Your task to perform on an android device: Search for beats solo 3 on target.com, select the first entry, and add it to the cart. Image 0: 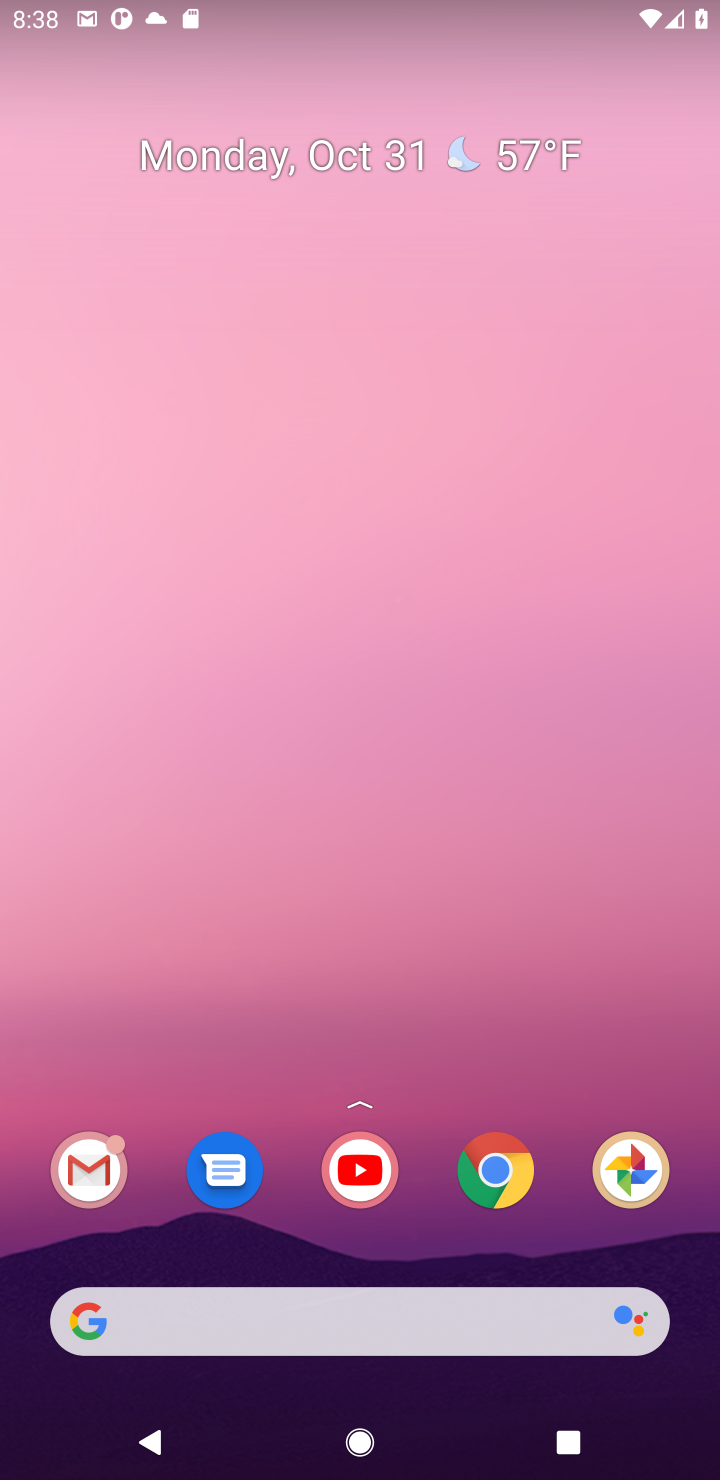
Step 0: click (497, 1165)
Your task to perform on an android device: Search for beats solo 3 on target.com, select the first entry, and add it to the cart. Image 1: 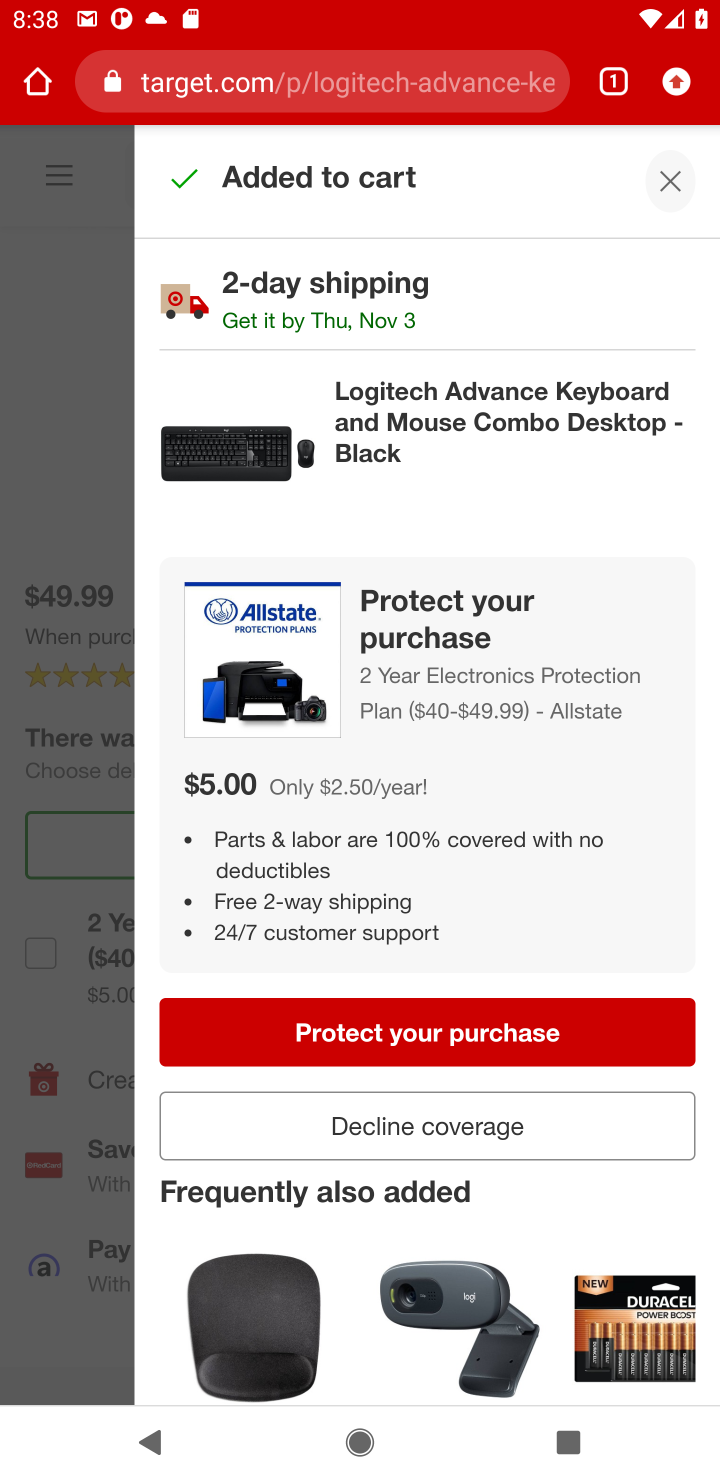
Step 1: press back button
Your task to perform on an android device: Search for beats solo 3 on target.com, select the first entry, and add it to the cart. Image 2: 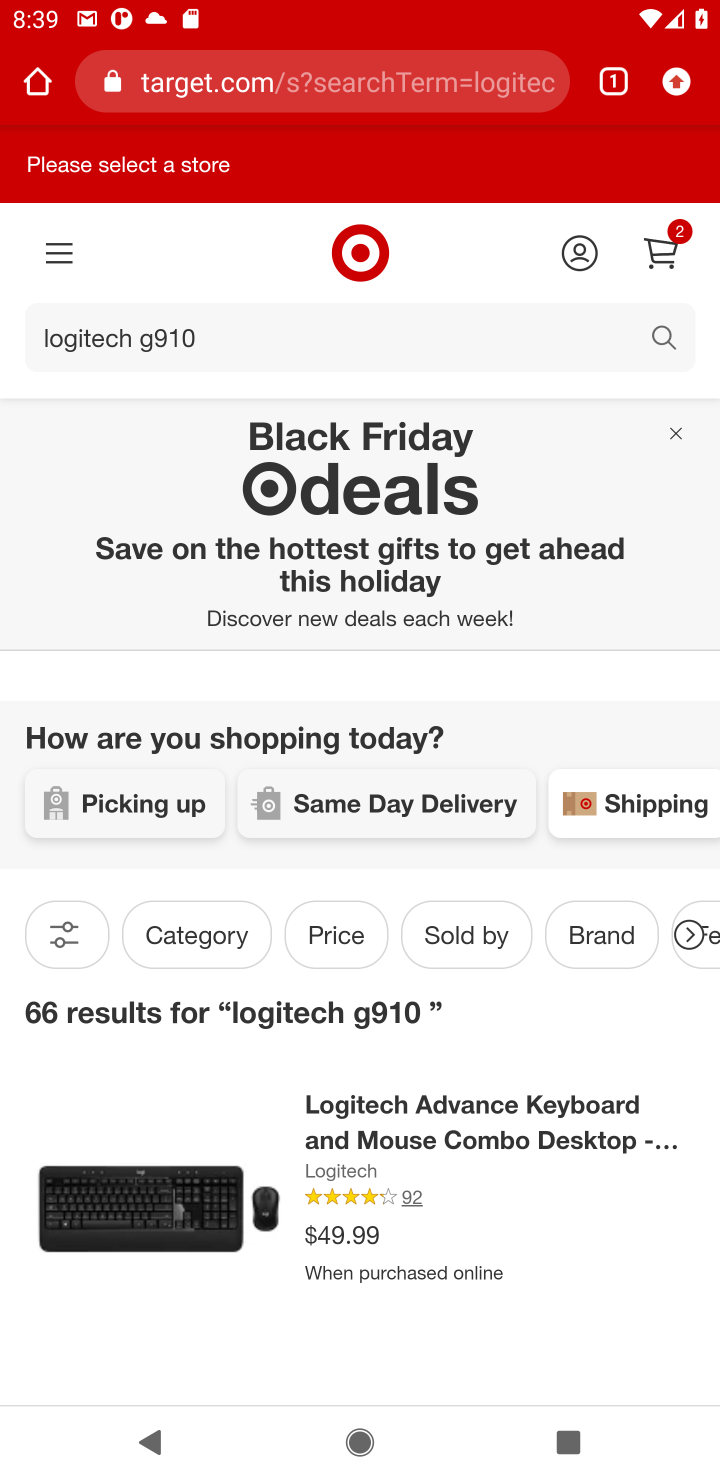
Step 2: click (526, 320)
Your task to perform on an android device: Search for beats solo 3 on target.com, select the first entry, and add it to the cart. Image 3: 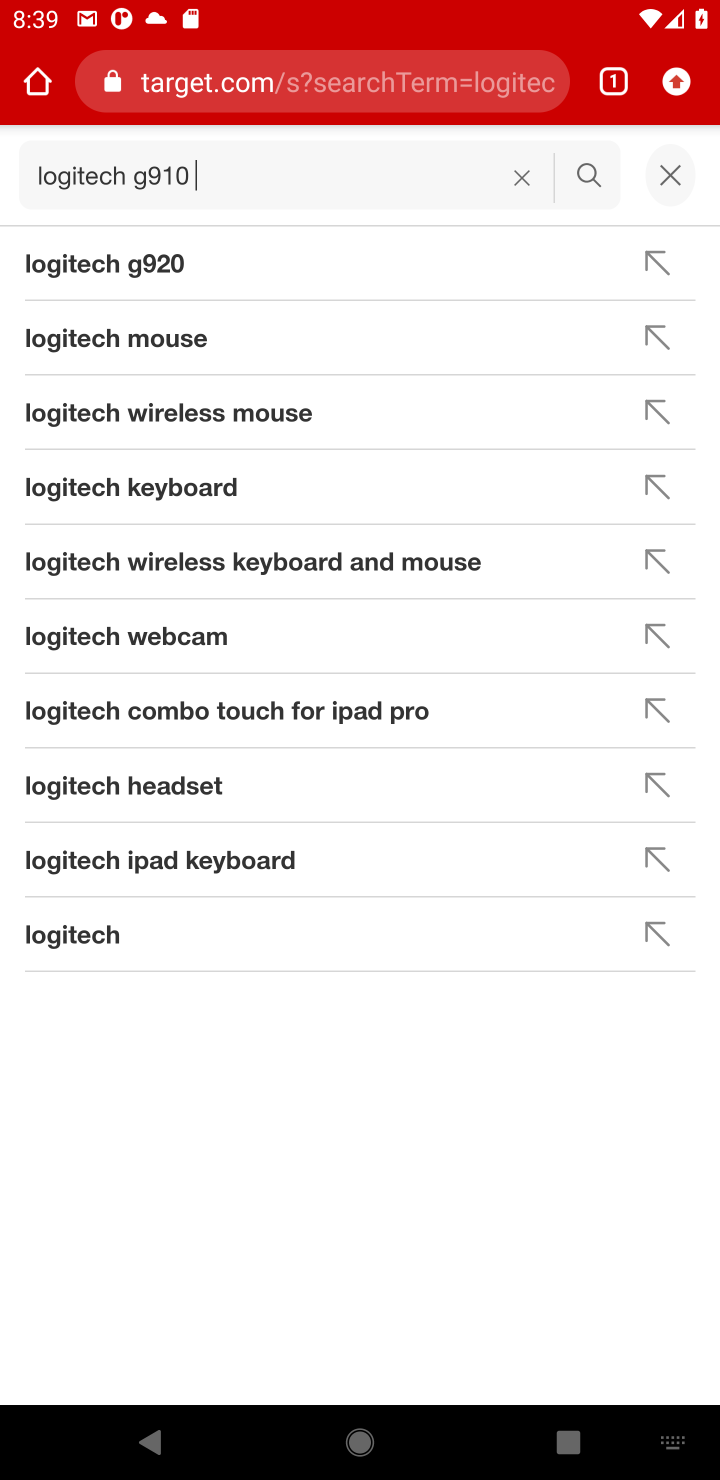
Step 3: click (511, 180)
Your task to perform on an android device: Search for beats solo 3 on target.com, select the first entry, and add it to the cart. Image 4: 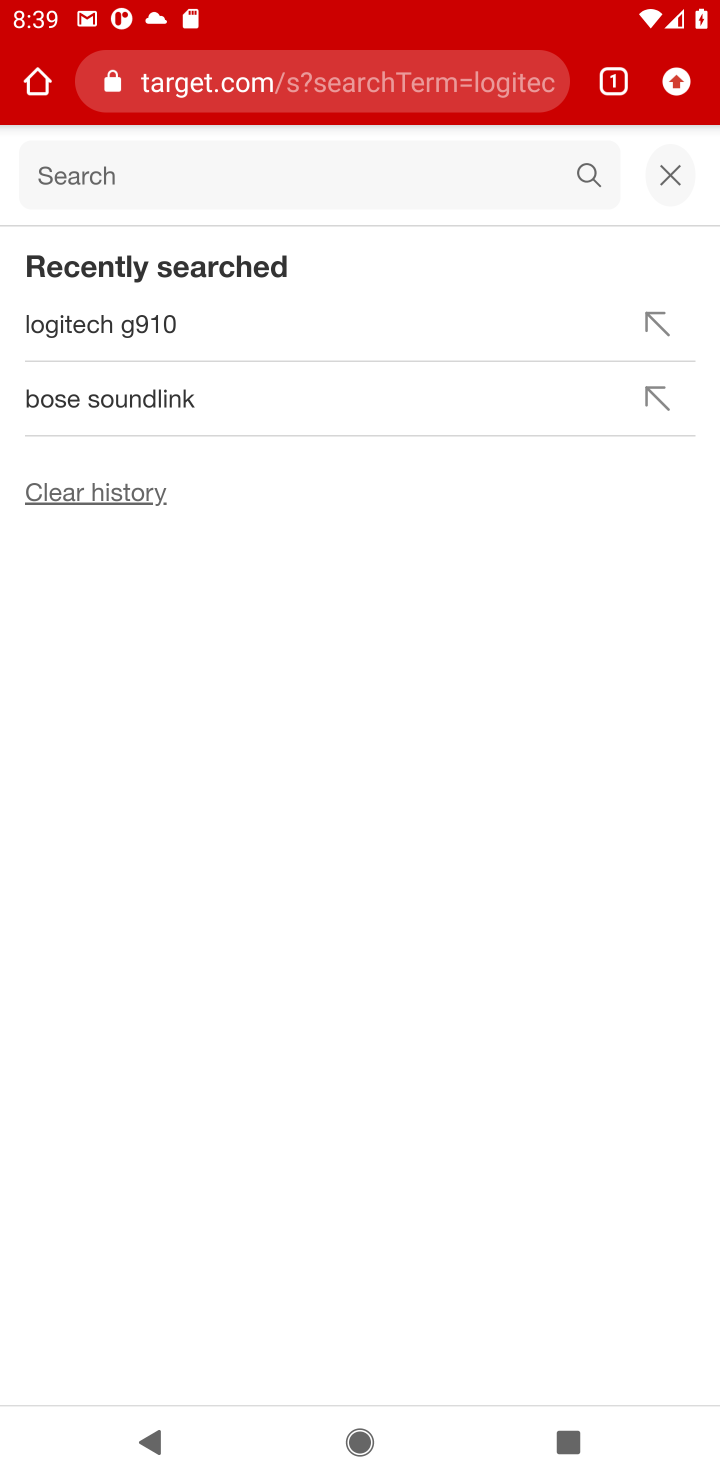
Step 4: type "beats solo 3 "
Your task to perform on an android device: Search for beats solo 3 on target.com, select the first entry, and add it to the cart. Image 5: 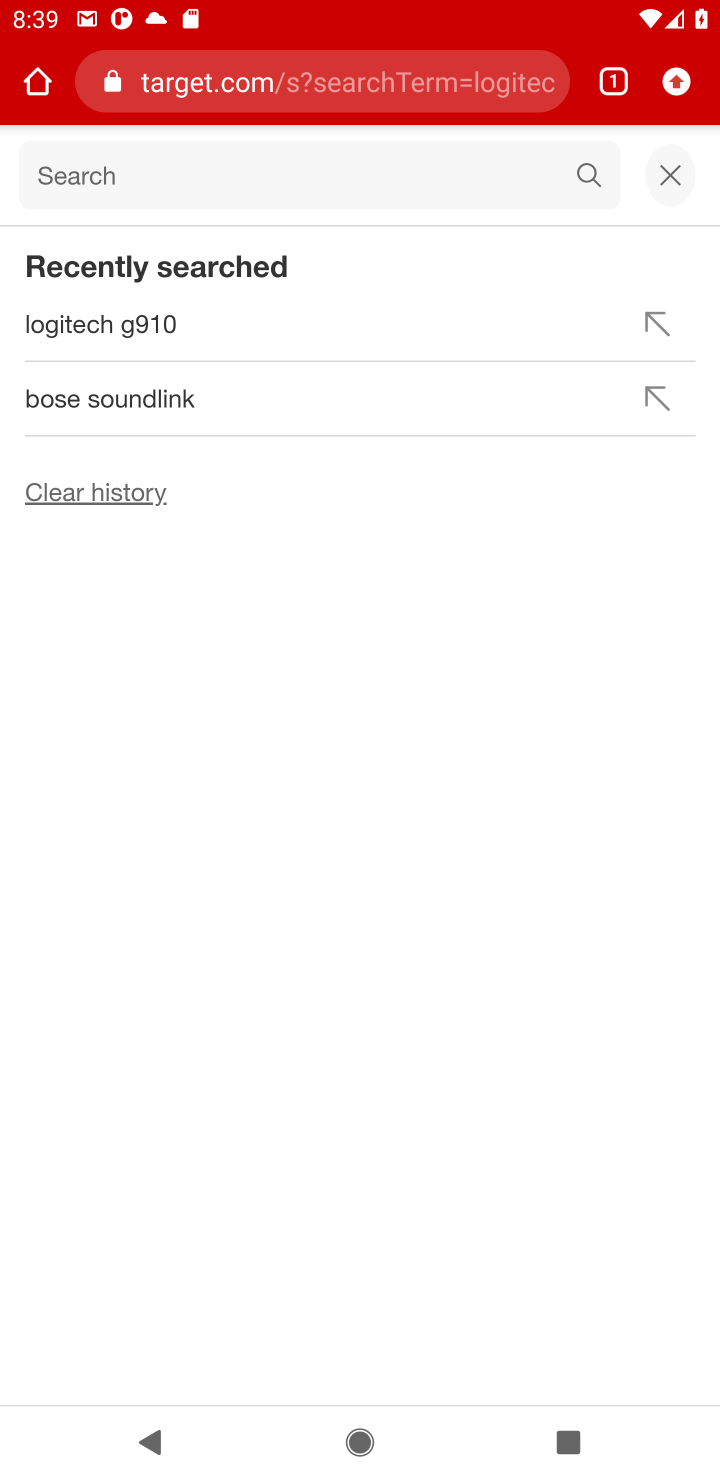
Step 5: click (307, 164)
Your task to perform on an android device: Search for beats solo 3 on target.com, select the first entry, and add it to the cart. Image 6: 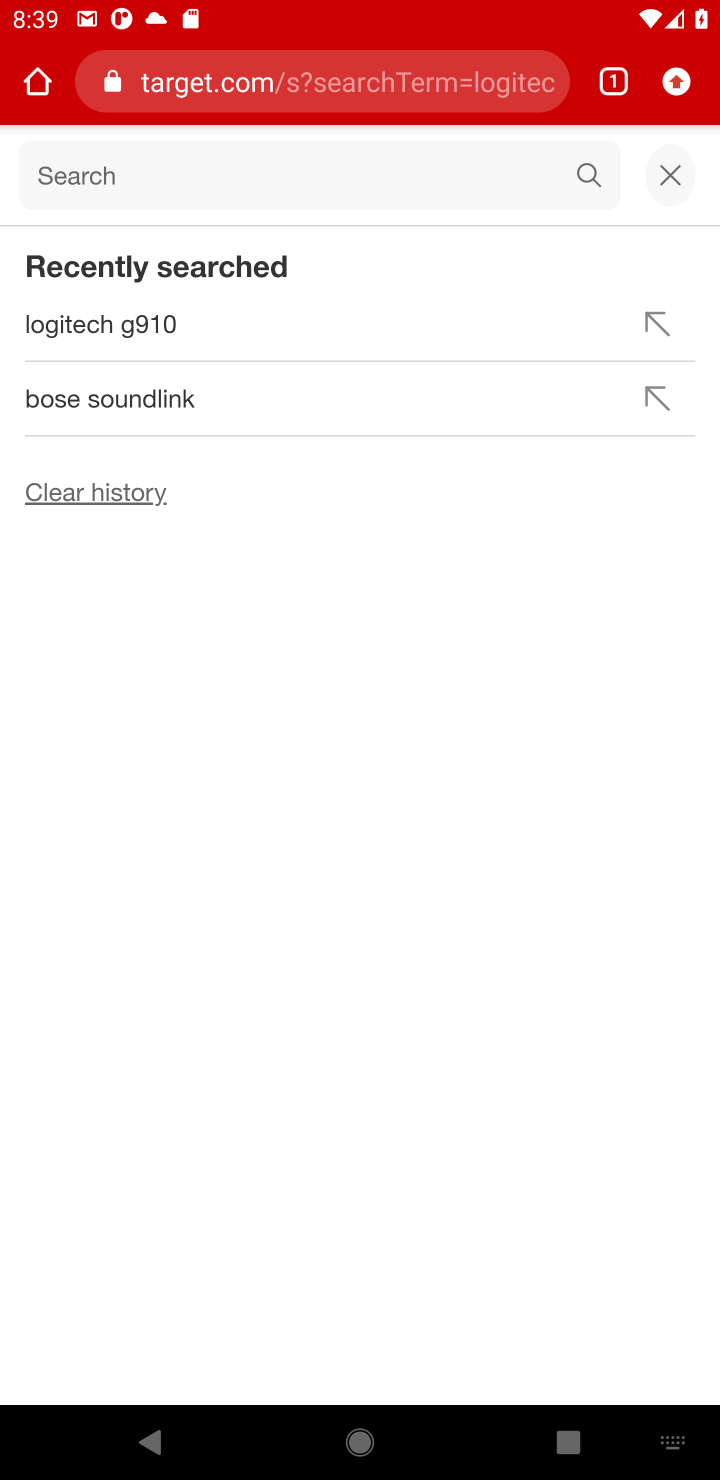
Step 6: click (307, 164)
Your task to perform on an android device: Search for beats solo 3 on target.com, select the first entry, and add it to the cart. Image 7: 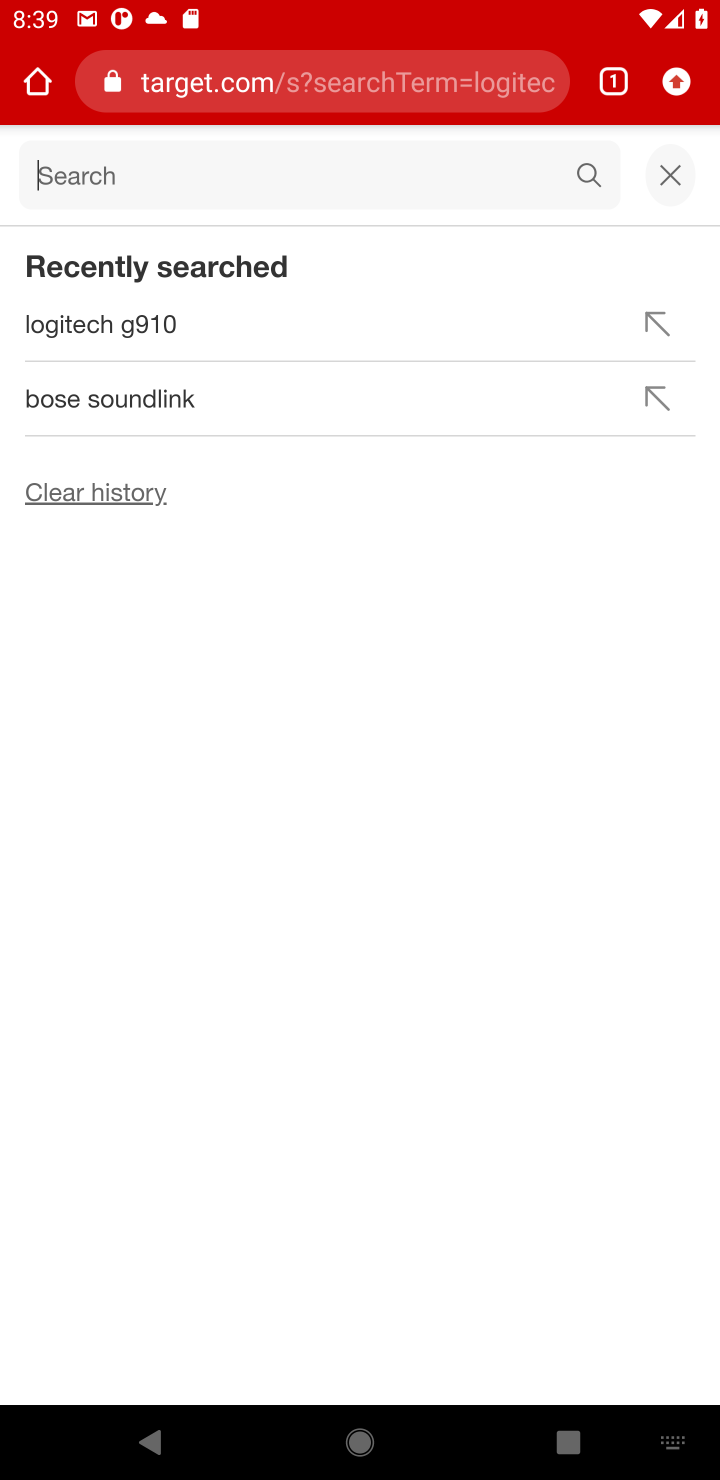
Step 7: click (307, 164)
Your task to perform on an android device: Search for beats solo 3 on target.com, select the first entry, and add it to the cart. Image 8: 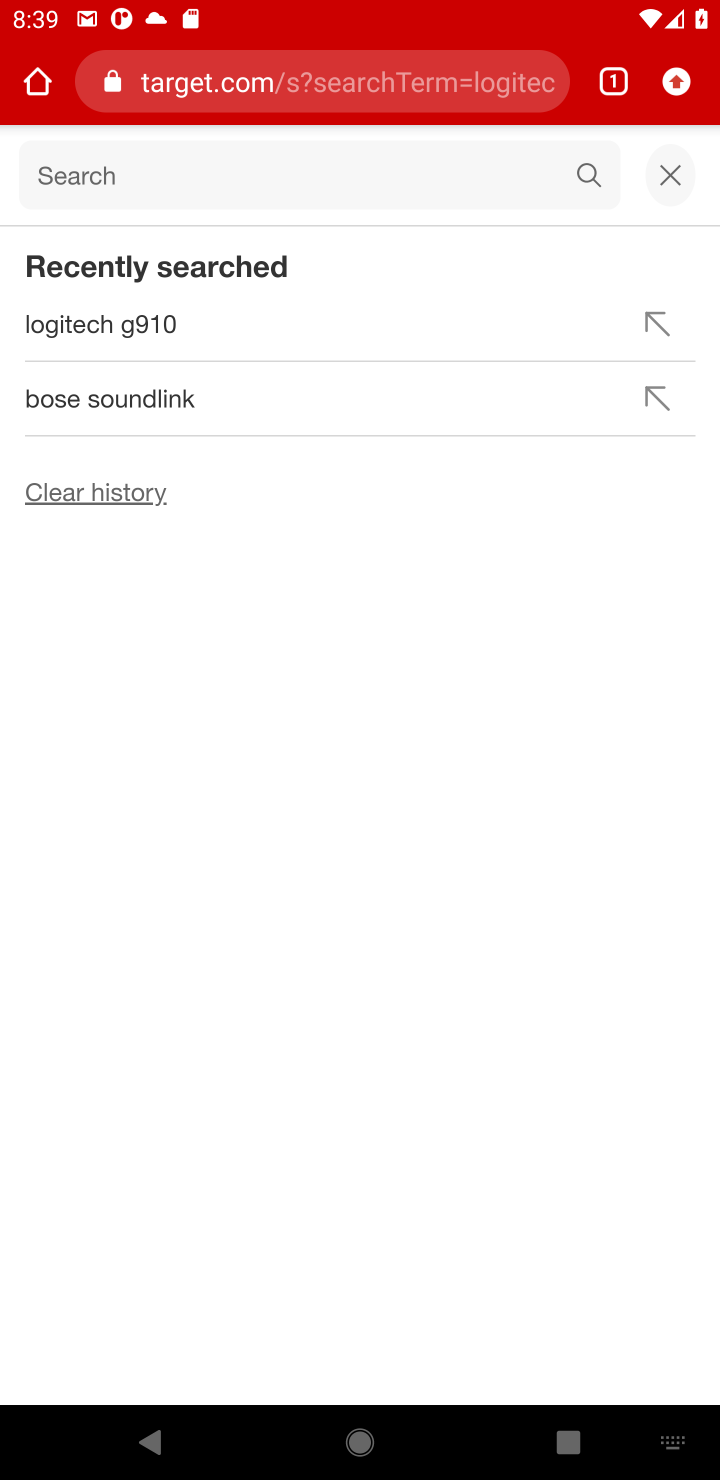
Step 8: type "beats solo 3 "
Your task to perform on an android device: Search for beats solo 3 on target.com, select the first entry, and add it to the cart. Image 9: 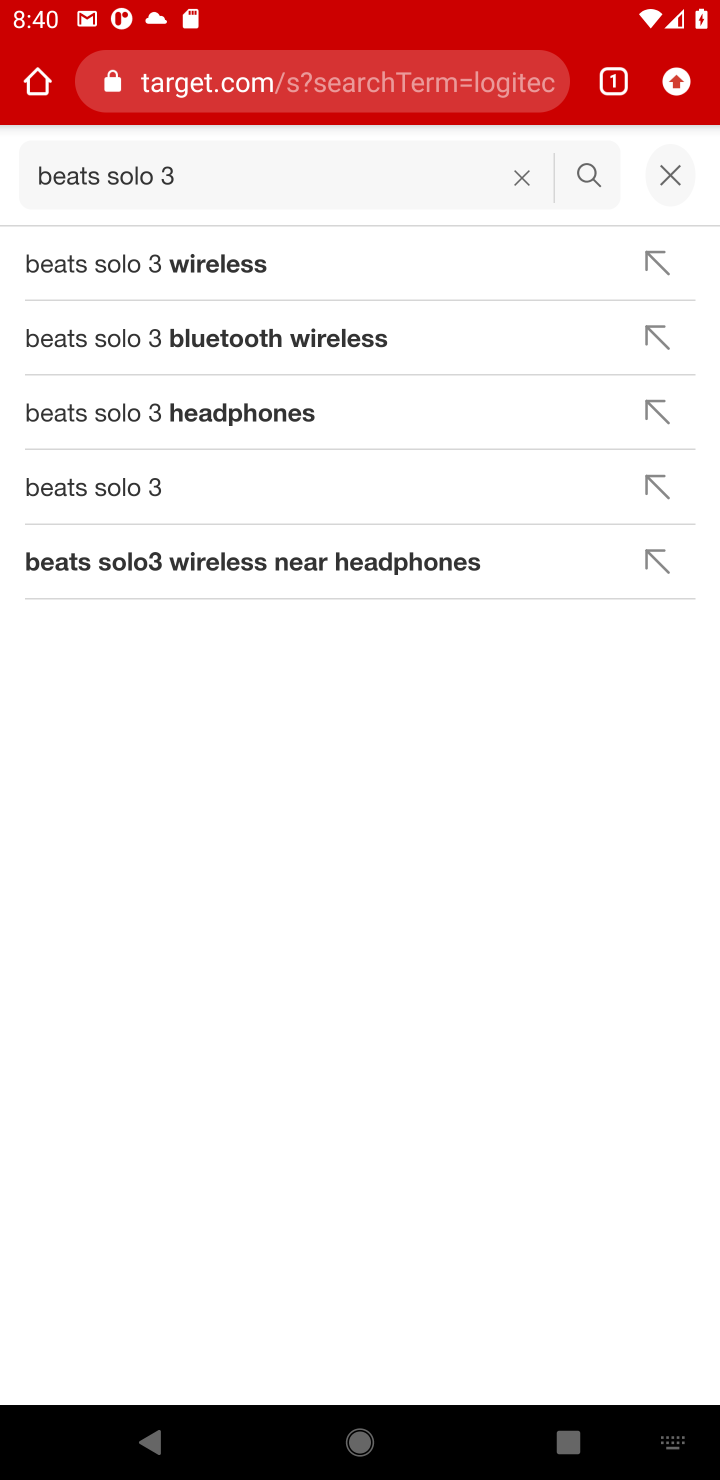
Step 9: click (597, 168)
Your task to perform on an android device: Search for beats solo 3 on target.com, select the first entry, and add it to the cart. Image 10: 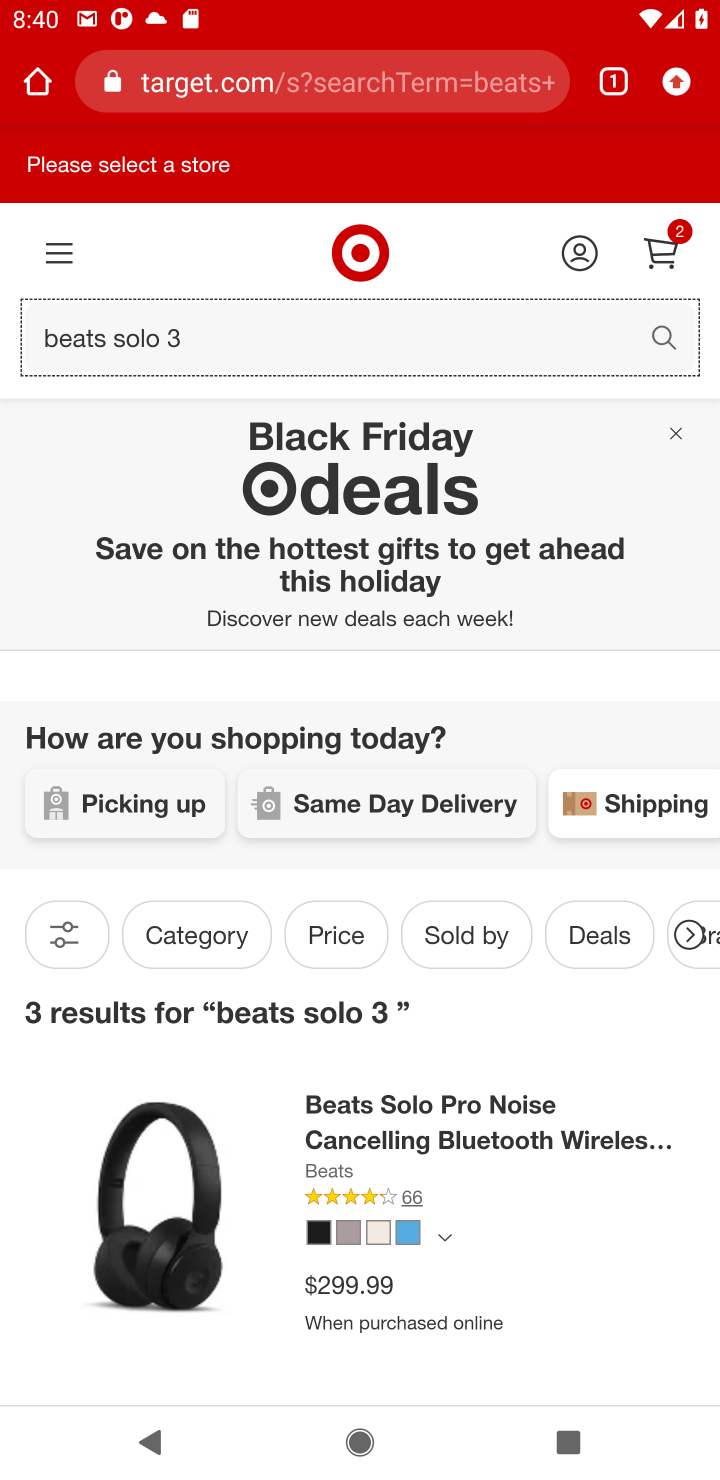
Step 10: click (398, 1150)
Your task to perform on an android device: Search for beats solo 3 on target.com, select the first entry, and add it to the cart. Image 11: 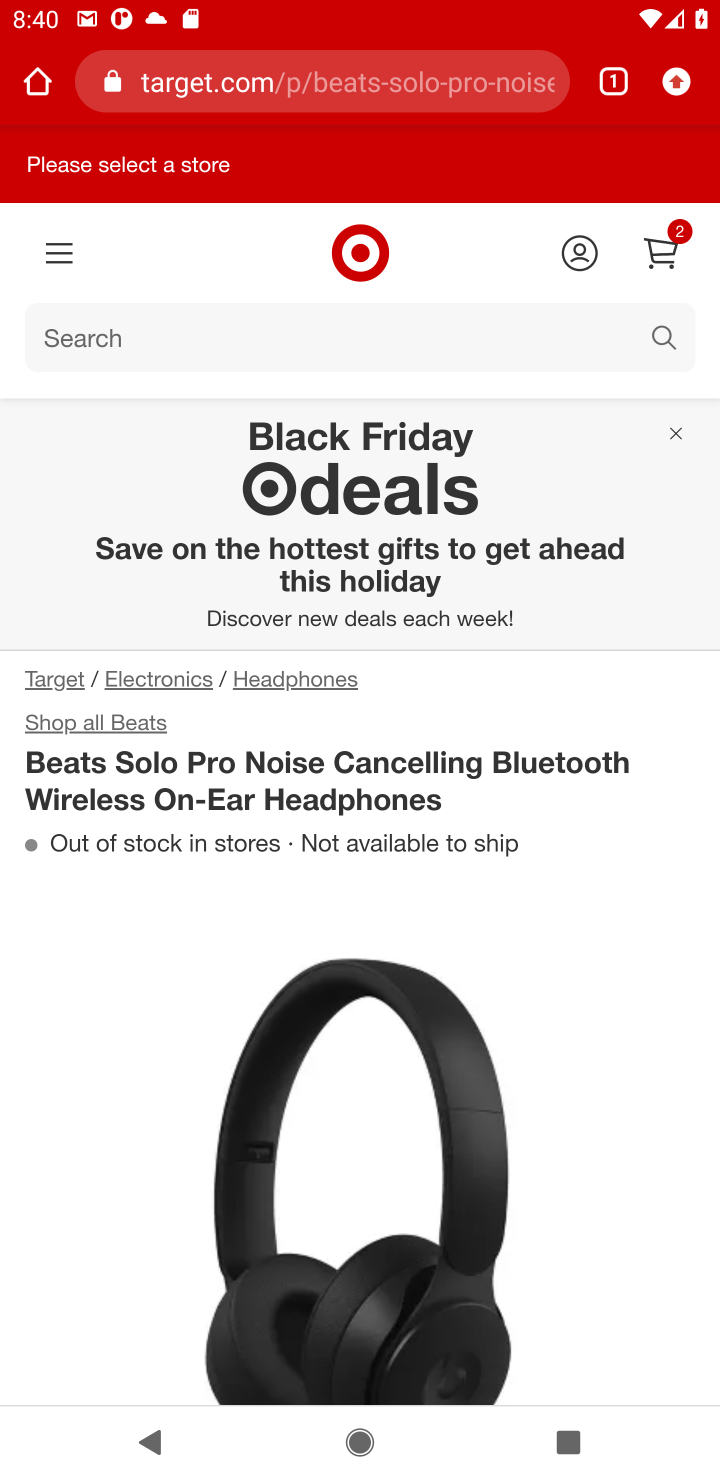
Step 11: drag from (105, 1236) to (272, 398)
Your task to perform on an android device: Search for beats solo 3 on target.com, select the first entry, and add it to the cart. Image 12: 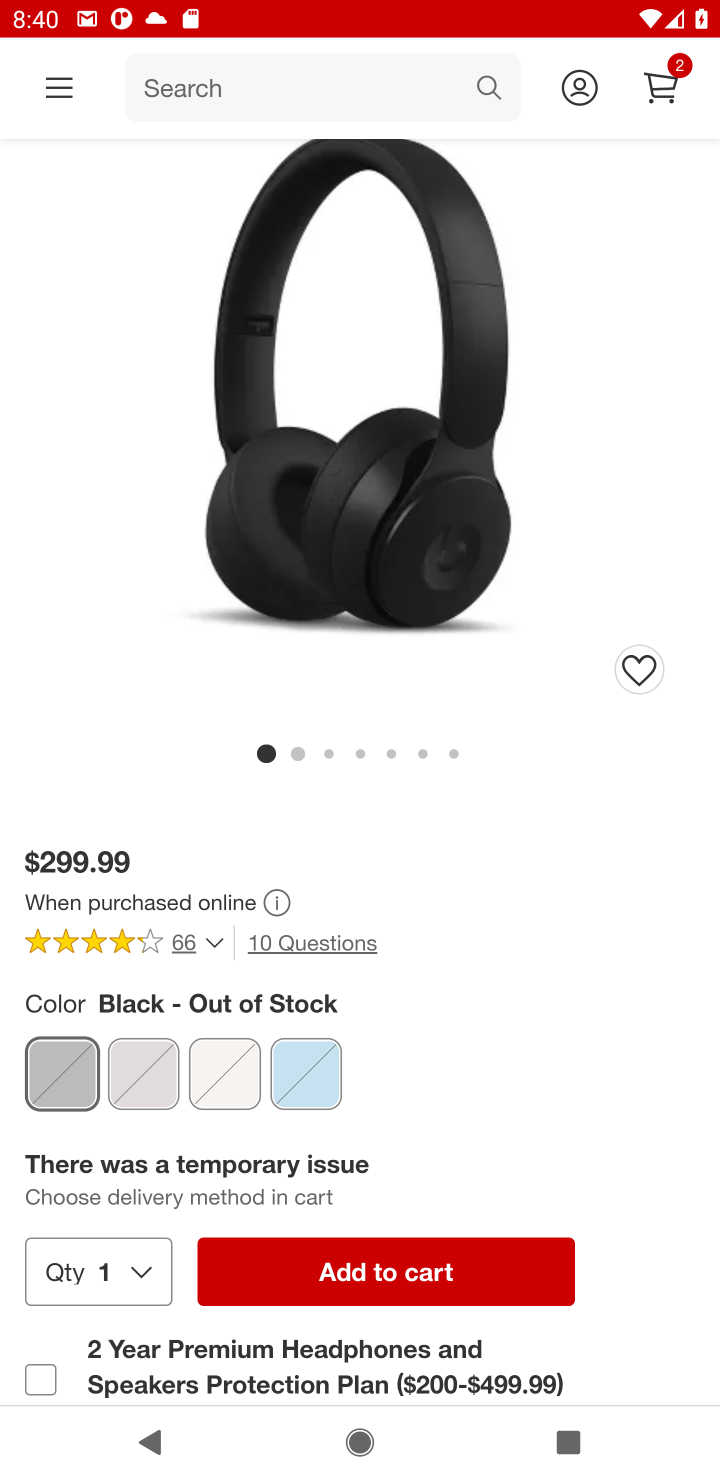
Step 12: click (484, 1271)
Your task to perform on an android device: Search for beats solo 3 on target.com, select the first entry, and add it to the cart. Image 13: 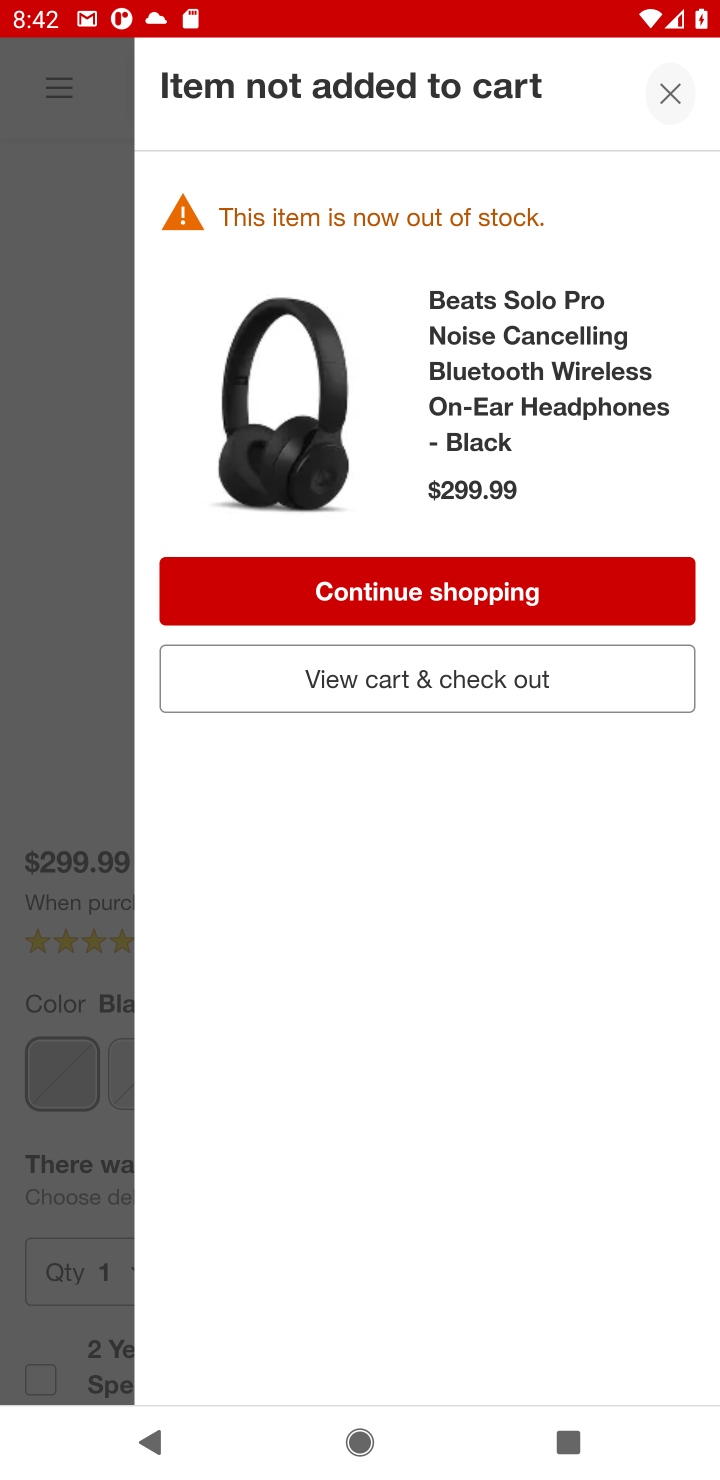
Step 13: task complete